Your task to perform on an android device: set the stopwatch Image 0: 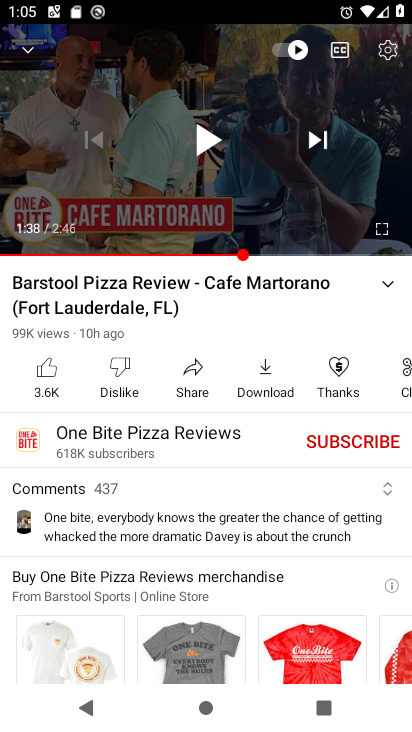
Step 0: press home button
Your task to perform on an android device: set the stopwatch Image 1: 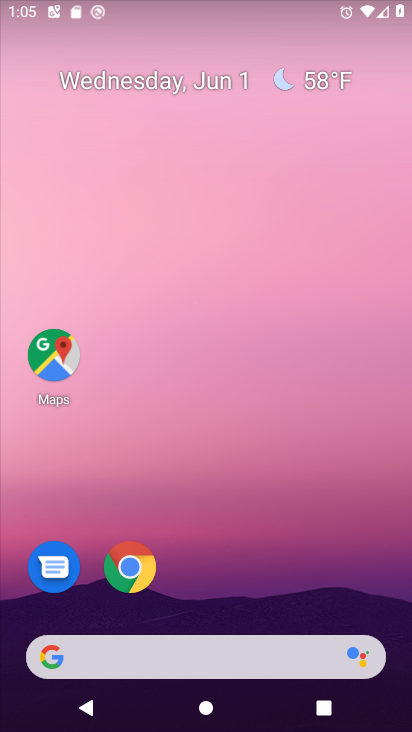
Step 1: drag from (246, 417) to (258, 23)
Your task to perform on an android device: set the stopwatch Image 2: 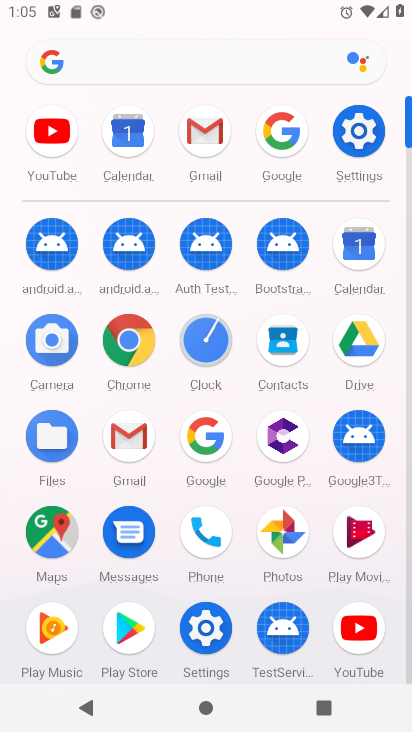
Step 2: click (198, 347)
Your task to perform on an android device: set the stopwatch Image 3: 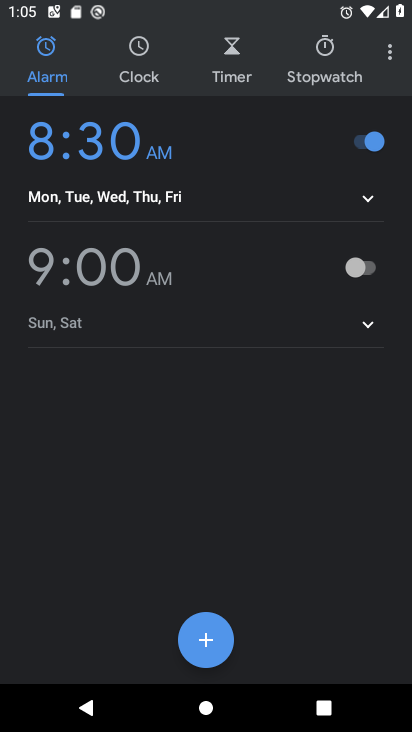
Step 3: click (324, 54)
Your task to perform on an android device: set the stopwatch Image 4: 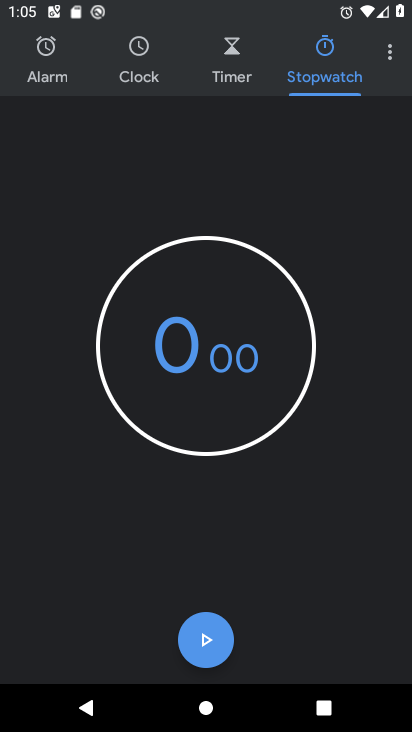
Step 4: click (199, 634)
Your task to perform on an android device: set the stopwatch Image 5: 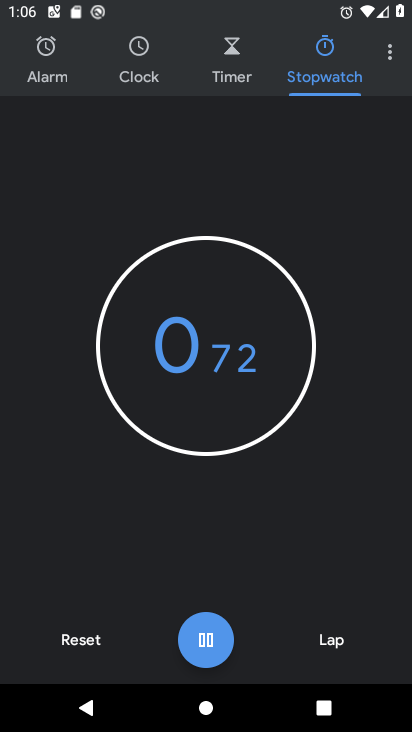
Step 5: click (199, 634)
Your task to perform on an android device: set the stopwatch Image 6: 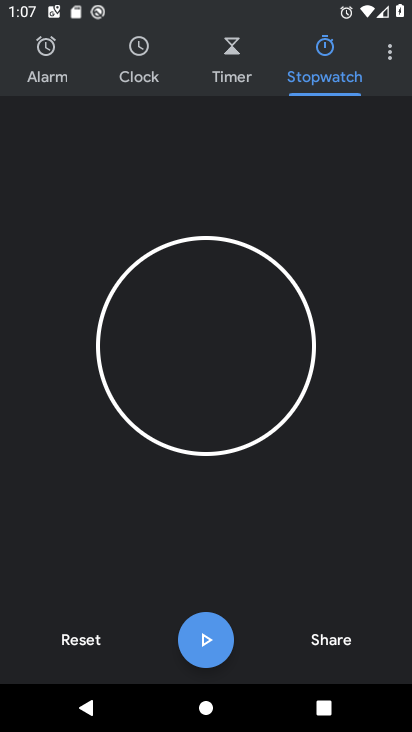
Step 6: task complete